Your task to perform on an android device: Do I have any events this weekend? Image 0: 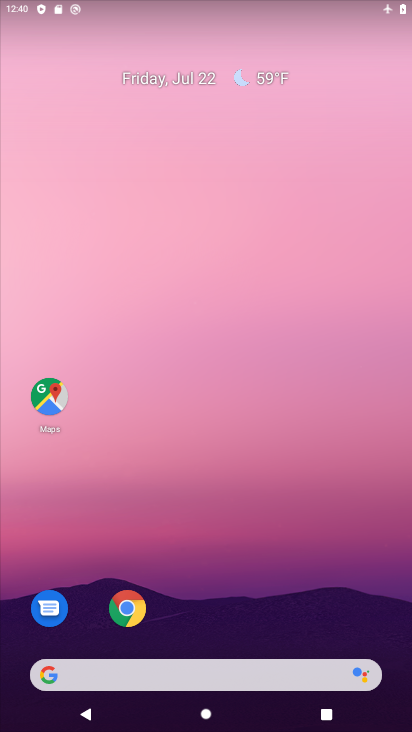
Step 0: drag from (213, 363) to (277, 49)
Your task to perform on an android device: Do I have any events this weekend? Image 1: 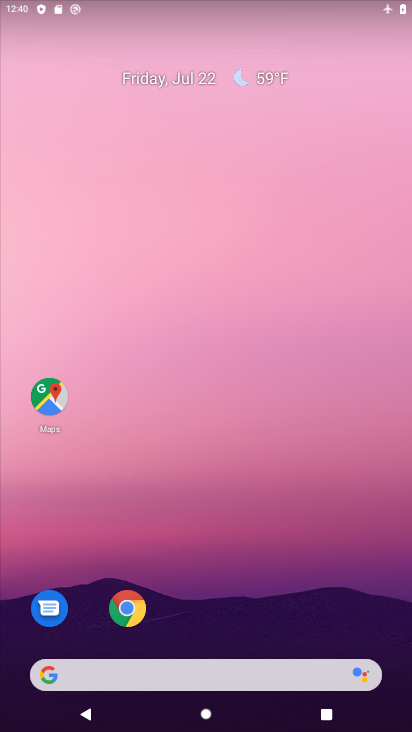
Step 1: drag from (248, 633) to (271, 183)
Your task to perform on an android device: Do I have any events this weekend? Image 2: 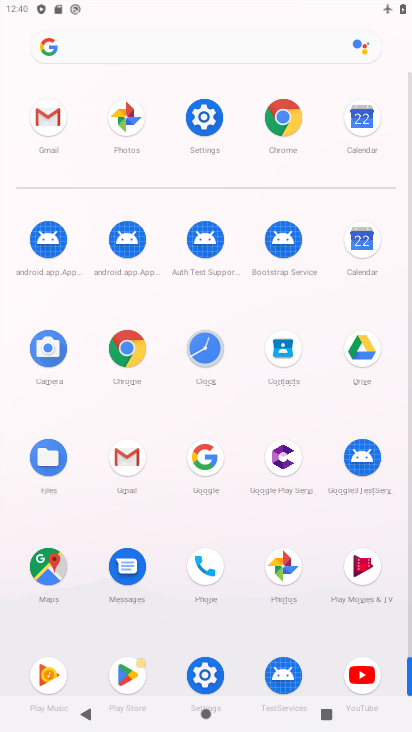
Step 2: click (370, 244)
Your task to perform on an android device: Do I have any events this weekend? Image 3: 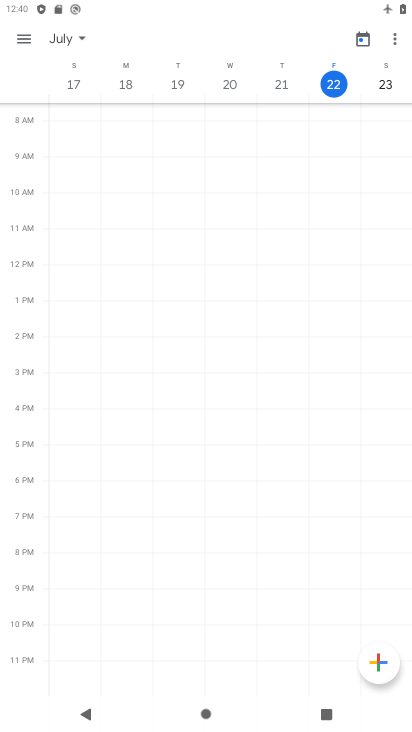
Step 3: click (23, 32)
Your task to perform on an android device: Do I have any events this weekend? Image 4: 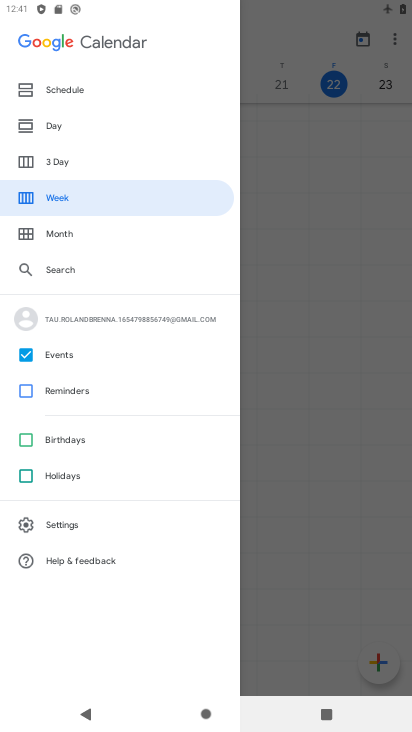
Step 4: click (114, 201)
Your task to perform on an android device: Do I have any events this weekend? Image 5: 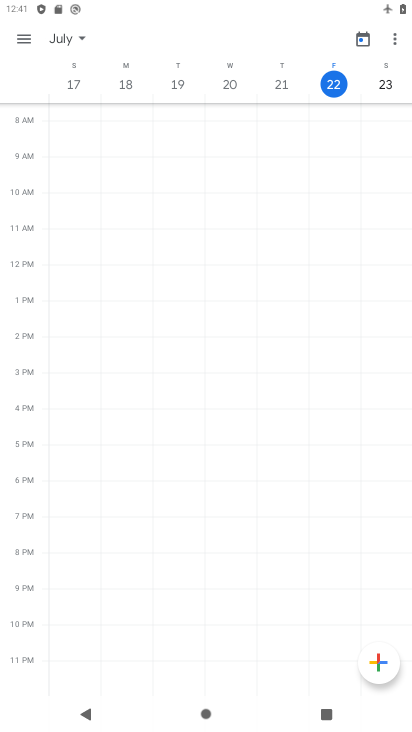
Step 5: task complete